Your task to perform on an android device: clear history in the chrome app Image 0: 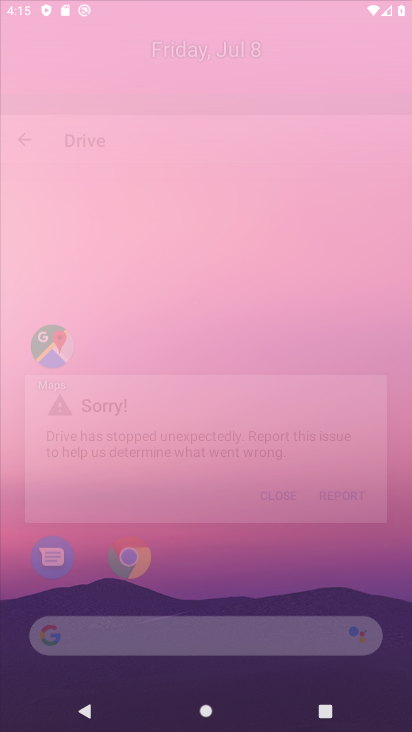
Step 0: click (298, 406)
Your task to perform on an android device: clear history in the chrome app Image 1: 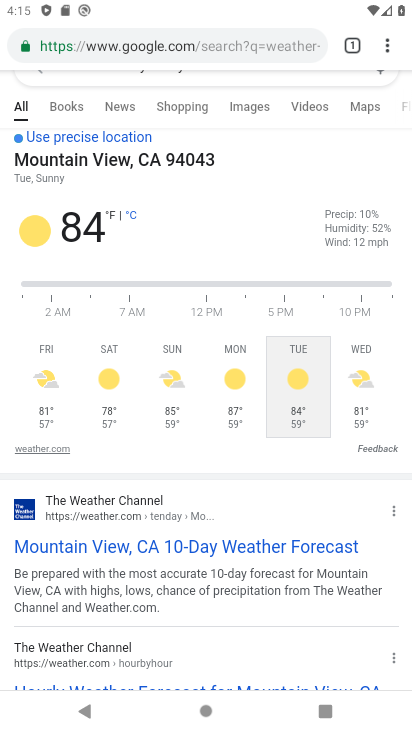
Step 1: click (384, 52)
Your task to perform on an android device: clear history in the chrome app Image 2: 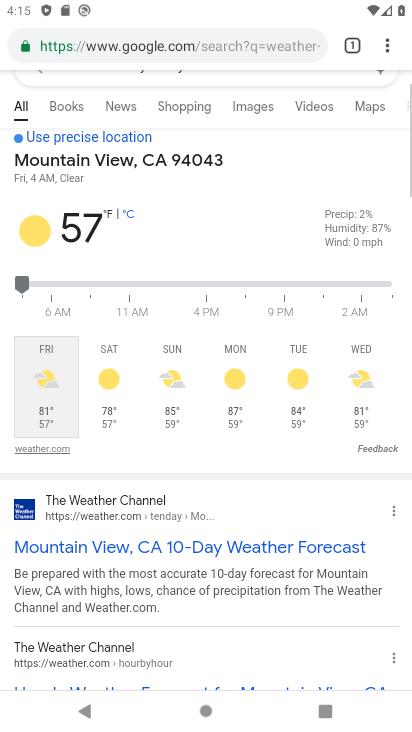
Step 2: task complete